Your task to perform on an android device: Show me the alarms in the clock app Image 0: 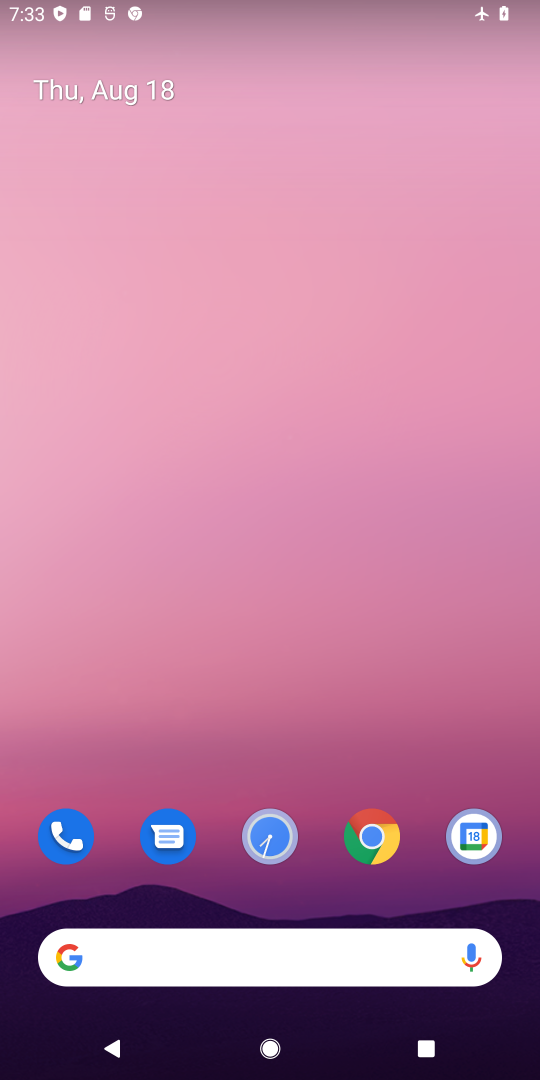
Step 0: drag from (267, 767) to (329, 64)
Your task to perform on an android device: Show me the alarms in the clock app Image 1: 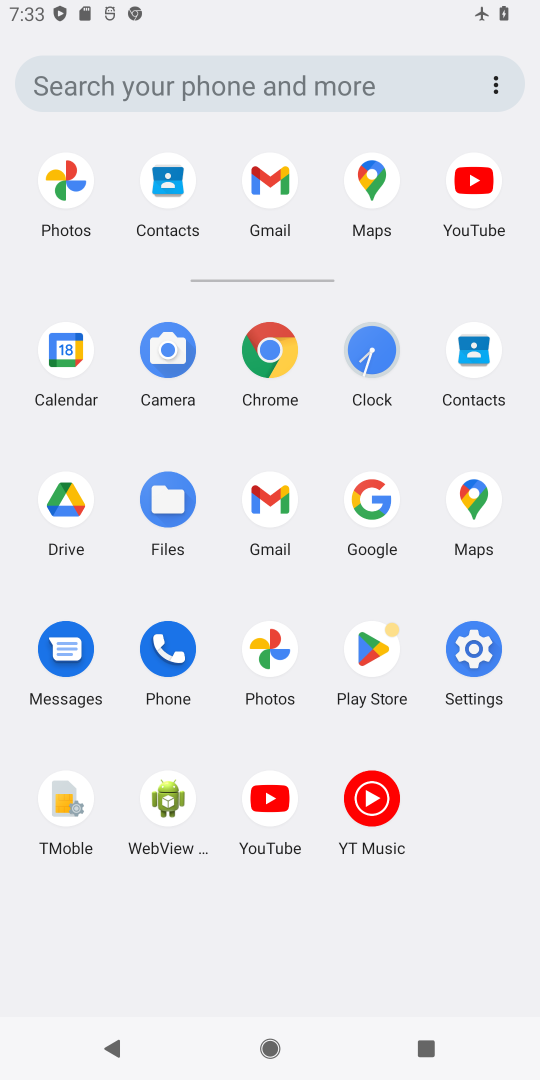
Step 1: click (381, 349)
Your task to perform on an android device: Show me the alarms in the clock app Image 2: 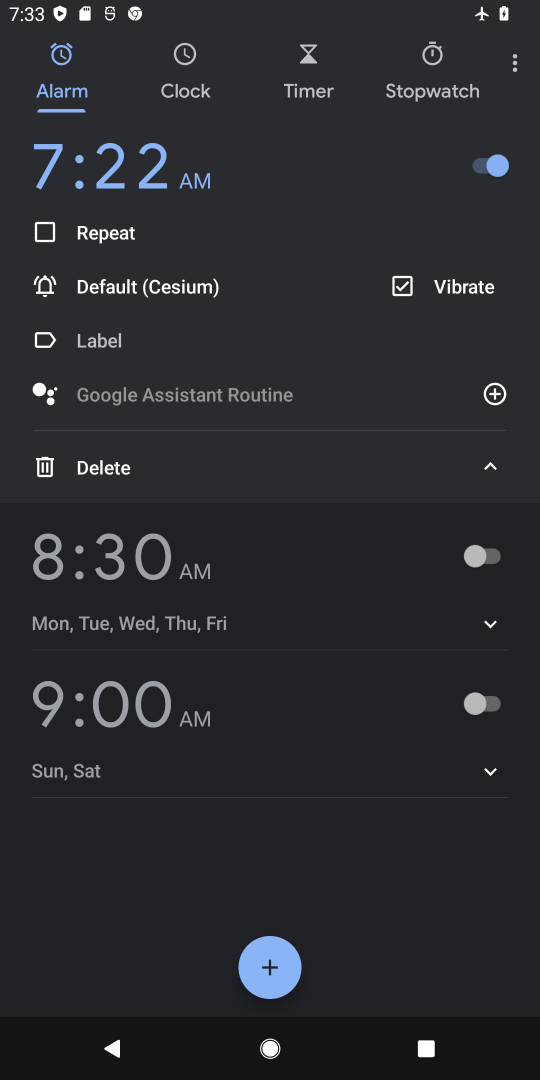
Step 2: task complete